Your task to perform on an android device: Open eBay Image 0: 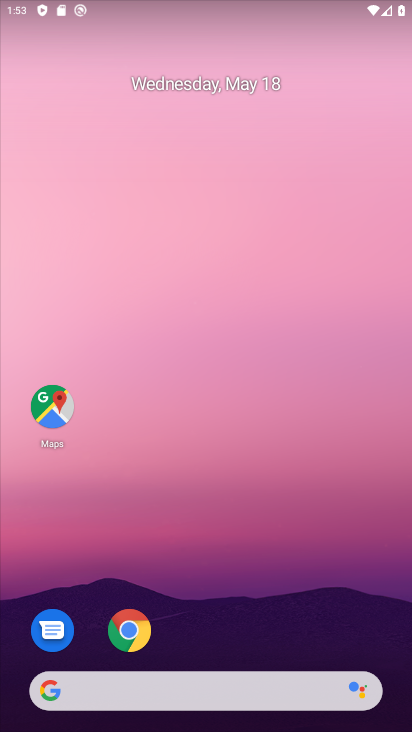
Step 0: click (145, 625)
Your task to perform on an android device: Open eBay Image 1: 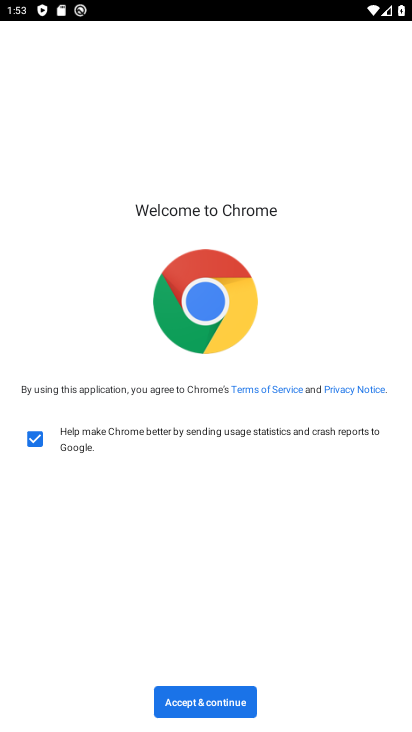
Step 1: click (209, 699)
Your task to perform on an android device: Open eBay Image 2: 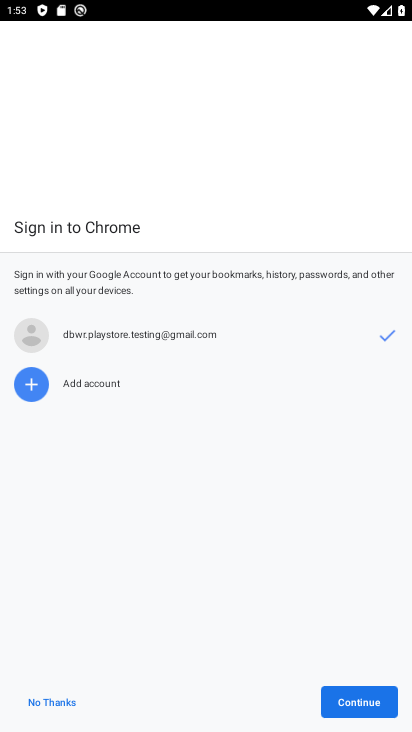
Step 2: click (347, 702)
Your task to perform on an android device: Open eBay Image 3: 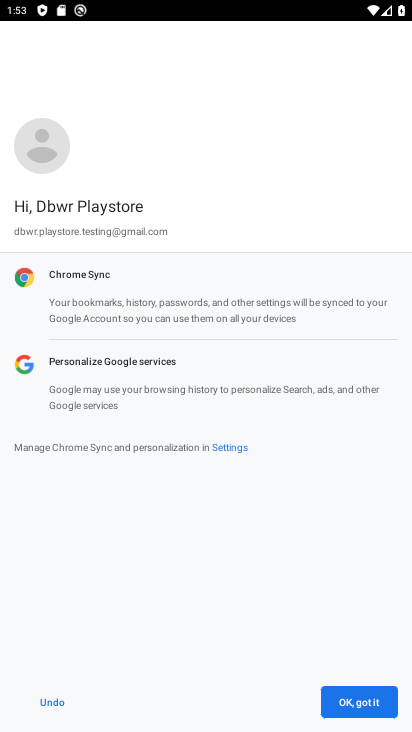
Step 3: click (347, 694)
Your task to perform on an android device: Open eBay Image 4: 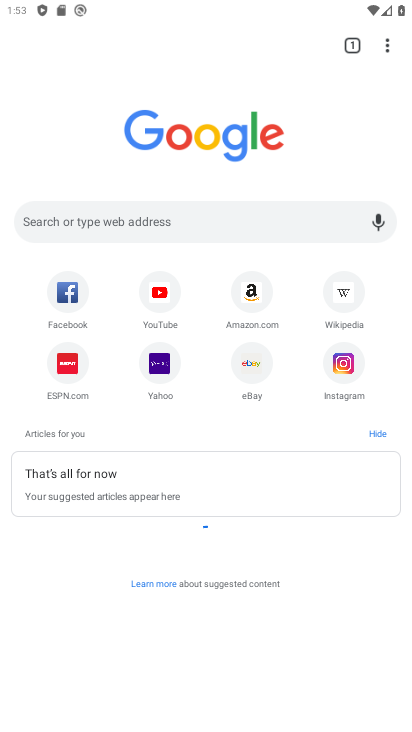
Step 4: click (188, 213)
Your task to perform on an android device: Open eBay Image 5: 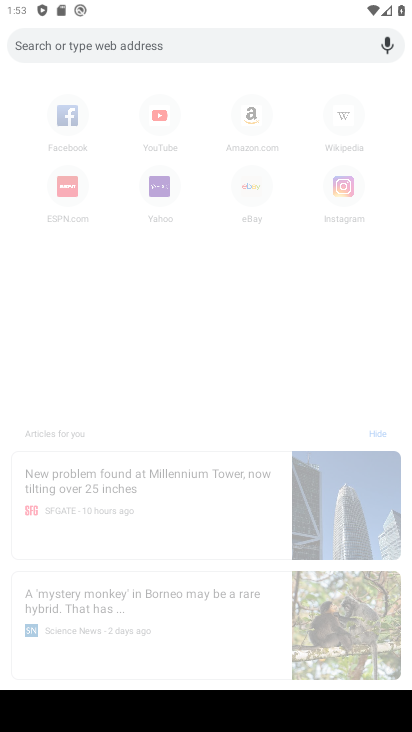
Step 5: type "eBay"
Your task to perform on an android device: Open eBay Image 6: 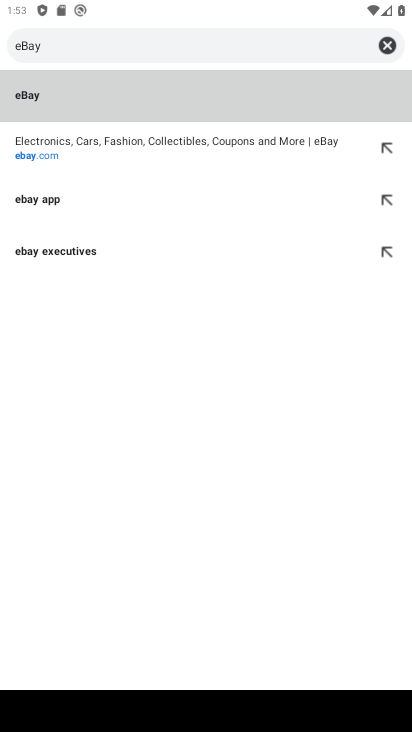
Step 6: click (66, 98)
Your task to perform on an android device: Open eBay Image 7: 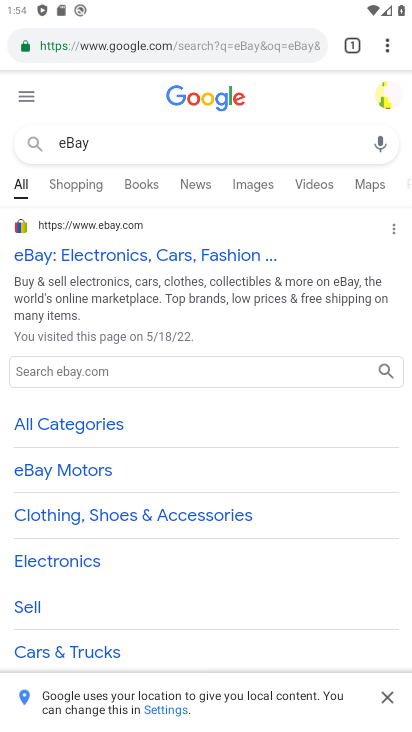
Step 7: click (87, 252)
Your task to perform on an android device: Open eBay Image 8: 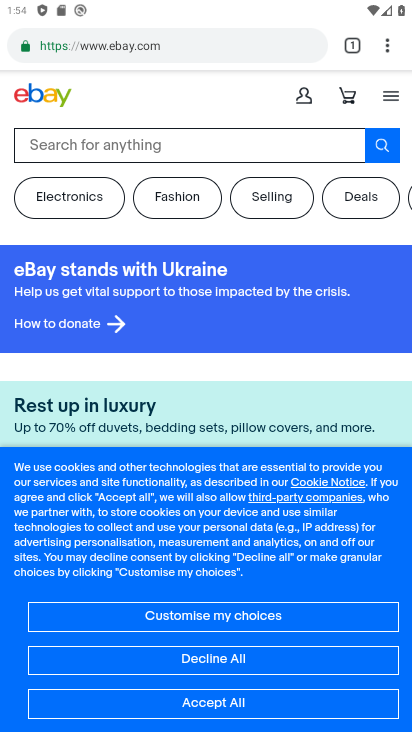
Step 8: task complete